Your task to perform on an android device: change the upload size in google photos Image 0: 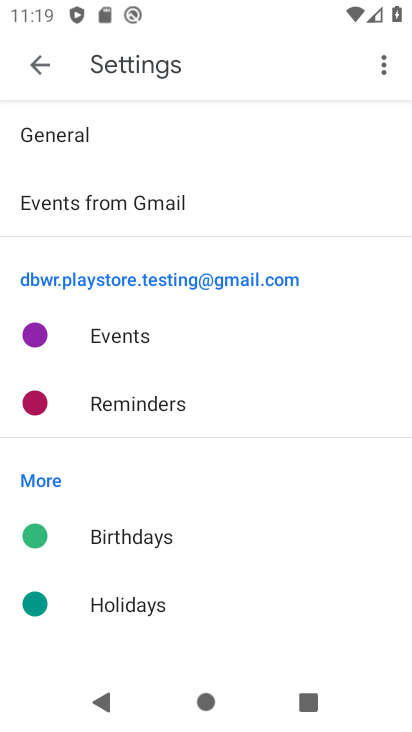
Step 0: press home button
Your task to perform on an android device: change the upload size in google photos Image 1: 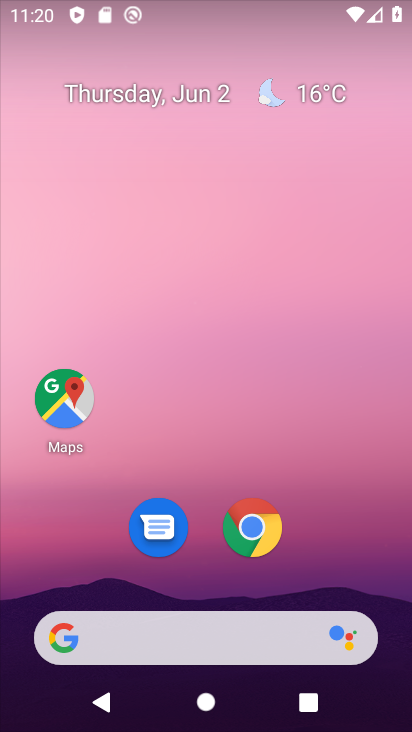
Step 1: drag from (226, 627) to (234, 219)
Your task to perform on an android device: change the upload size in google photos Image 2: 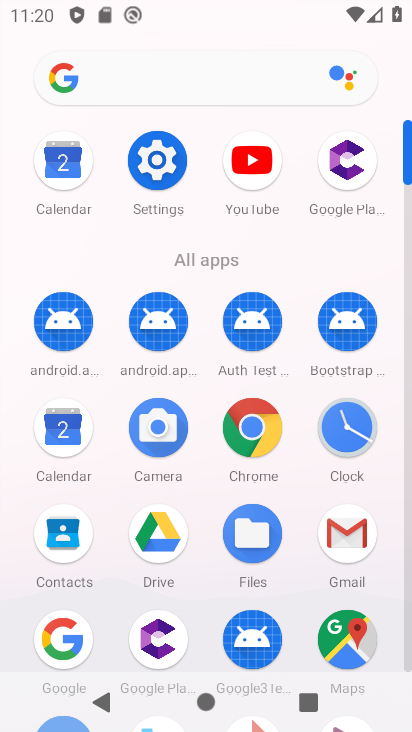
Step 2: drag from (199, 539) to (188, 164)
Your task to perform on an android device: change the upload size in google photos Image 3: 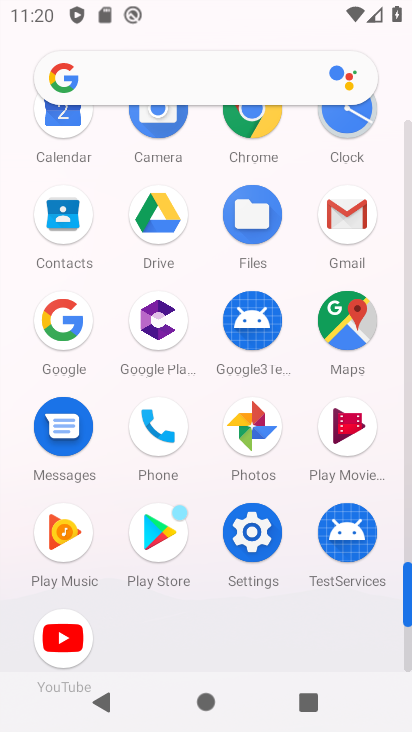
Step 3: click (261, 431)
Your task to perform on an android device: change the upload size in google photos Image 4: 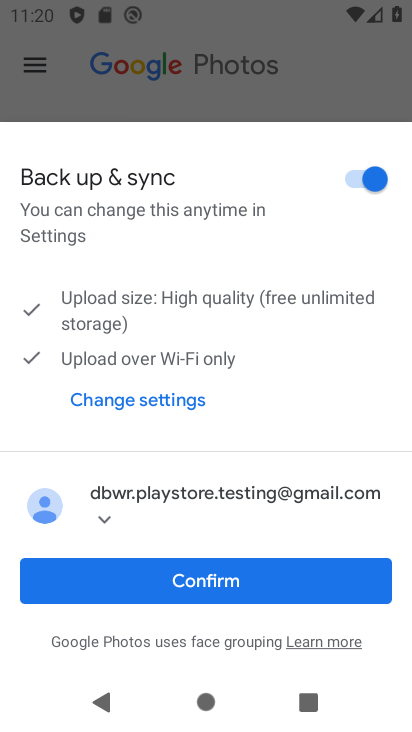
Step 4: click (227, 578)
Your task to perform on an android device: change the upload size in google photos Image 5: 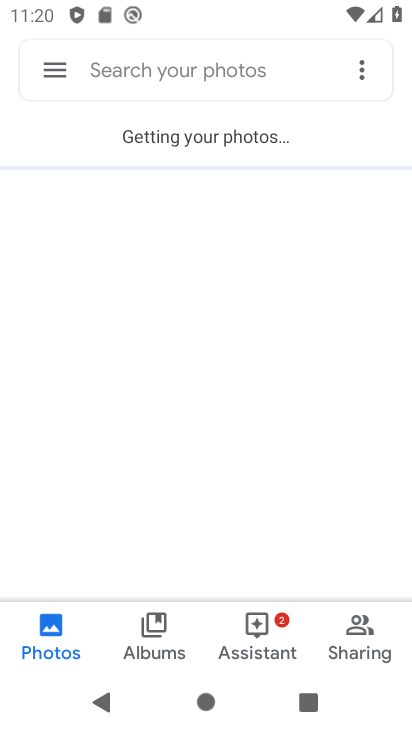
Step 5: click (48, 74)
Your task to perform on an android device: change the upload size in google photos Image 6: 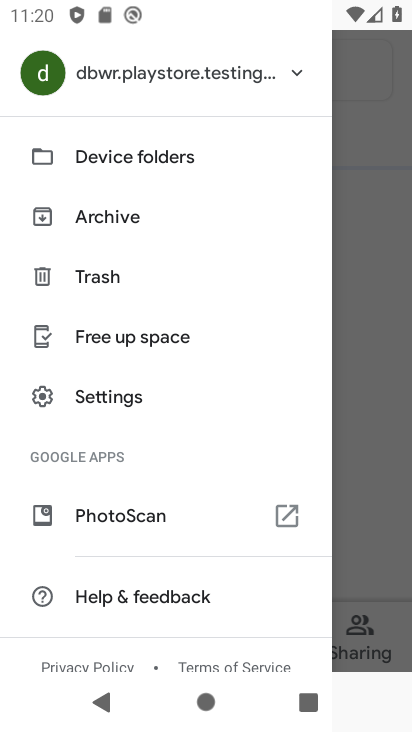
Step 6: drag from (140, 510) to (130, 287)
Your task to perform on an android device: change the upload size in google photos Image 7: 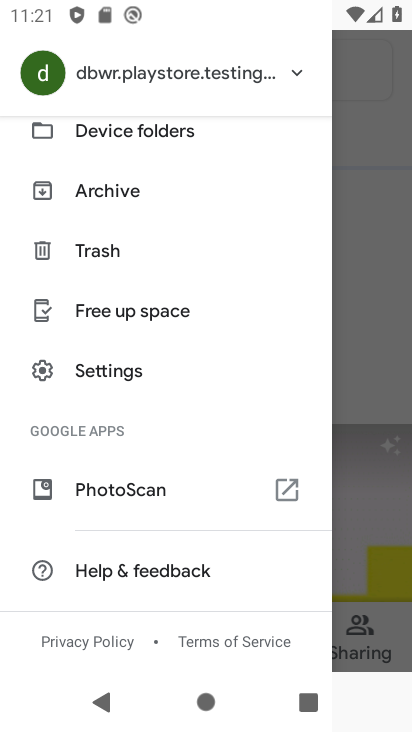
Step 7: click (79, 374)
Your task to perform on an android device: change the upload size in google photos Image 8: 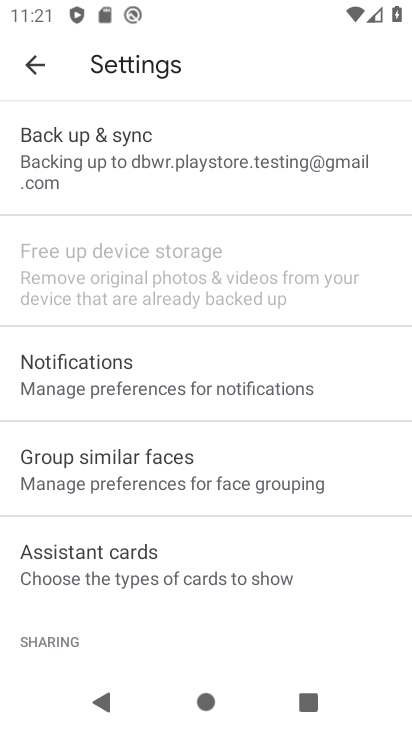
Step 8: click (124, 173)
Your task to perform on an android device: change the upload size in google photos Image 9: 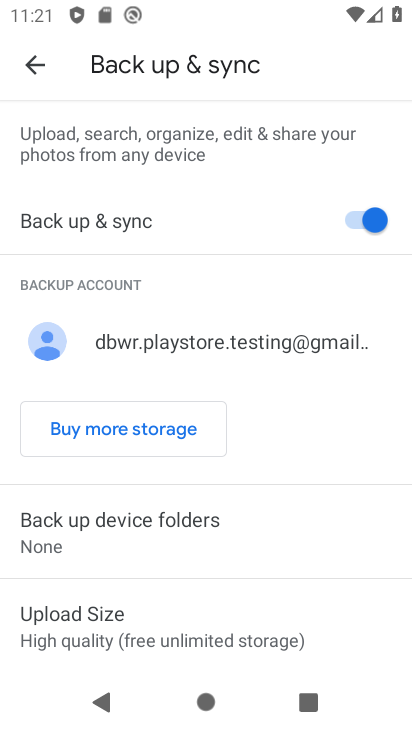
Step 9: click (150, 625)
Your task to perform on an android device: change the upload size in google photos Image 10: 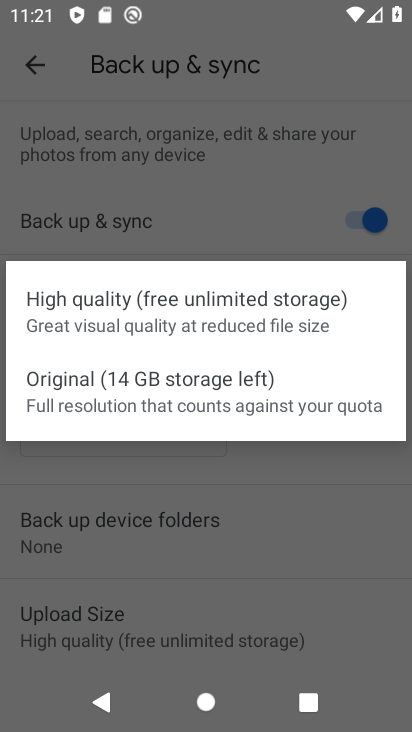
Step 10: click (156, 405)
Your task to perform on an android device: change the upload size in google photos Image 11: 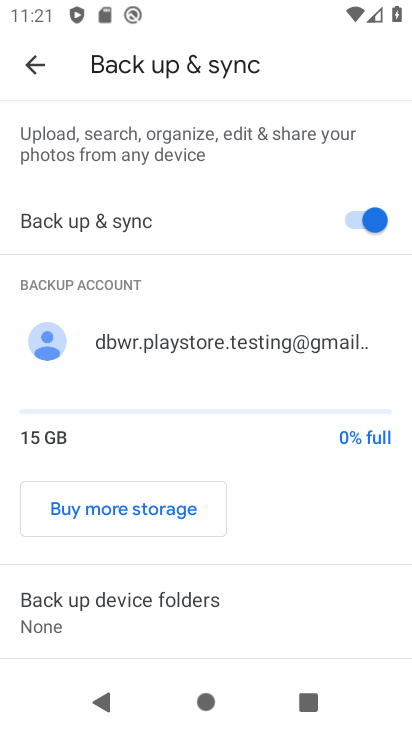
Step 11: task complete